Your task to perform on an android device: set the stopwatch Image 0: 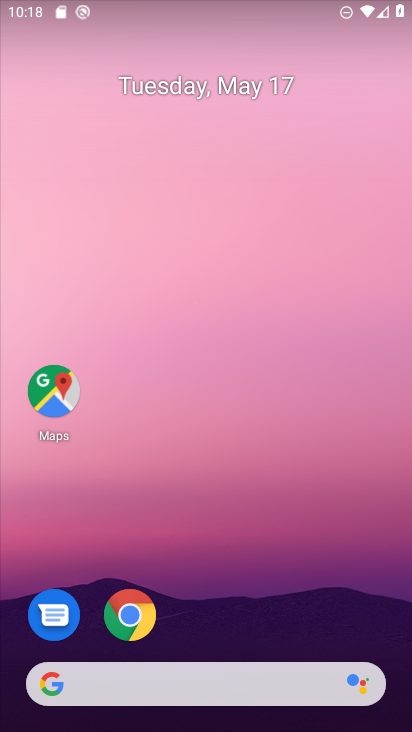
Step 0: drag from (253, 548) to (177, 63)
Your task to perform on an android device: set the stopwatch Image 1: 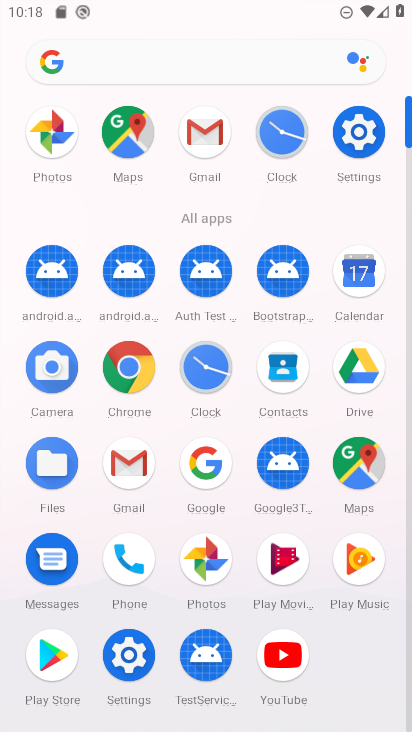
Step 1: click (272, 117)
Your task to perform on an android device: set the stopwatch Image 2: 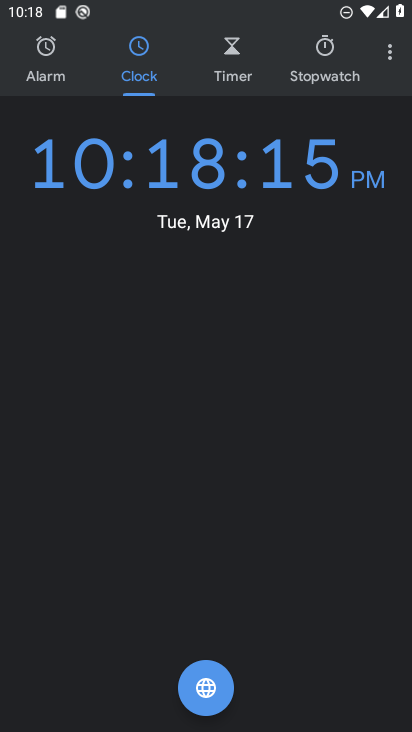
Step 2: click (310, 64)
Your task to perform on an android device: set the stopwatch Image 3: 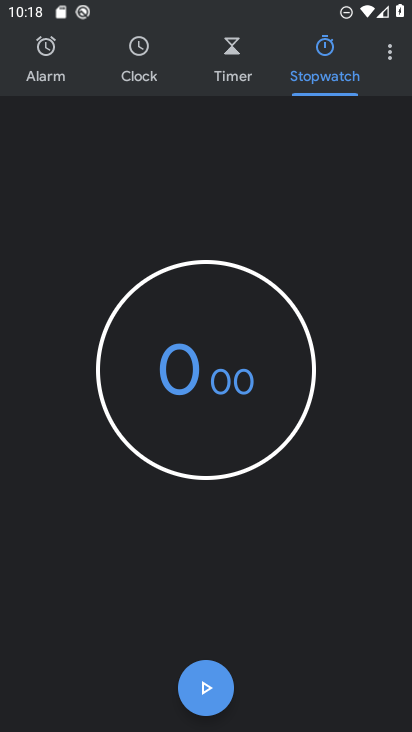
Step 3: click (212, 682)
Your task to perform on an android device: set the stopwatch Image 4: 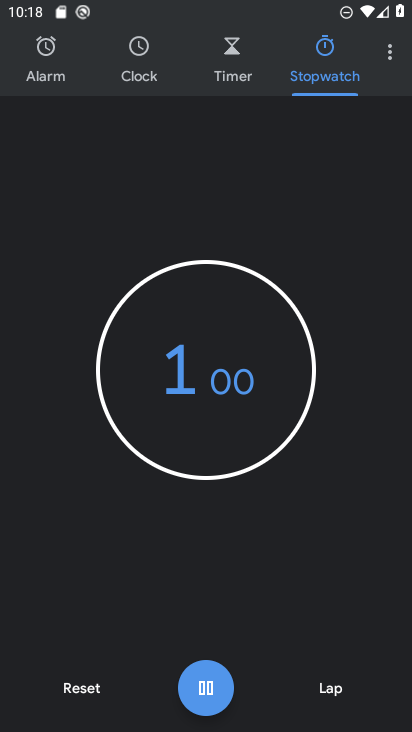
Step 4: task complete